Your task to perform on an android device: toggle priority inbox in the gmail app Image 0: 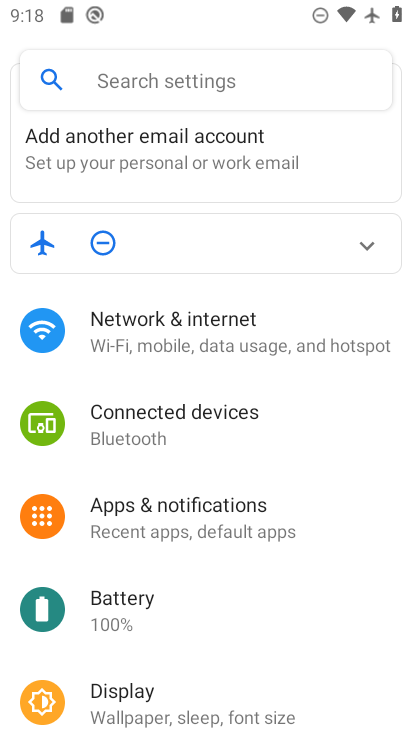
Step 0: press home button
Your task to perform on an android device: toggle priority inbox in the gmail app Image 1: 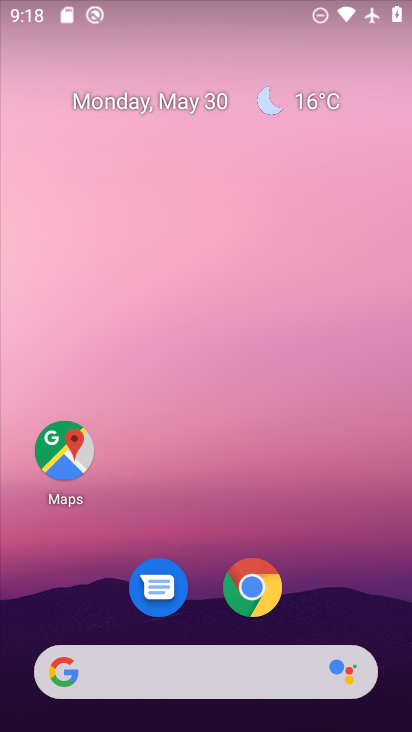
Step 1: drag from (197, 665) to (369, 98)
Your task to perform on an android device: toggle priority inbox in the gmail app Image 2: 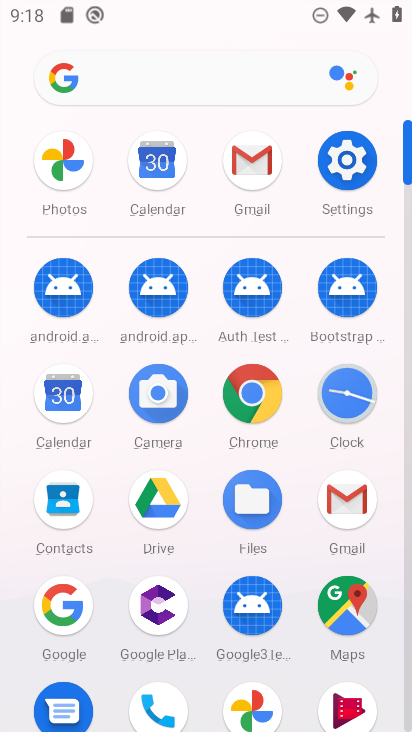
Step 2: click (261, 160)
Your task to perform on an android device: toggle priority inbox in the gmail app Image 3: 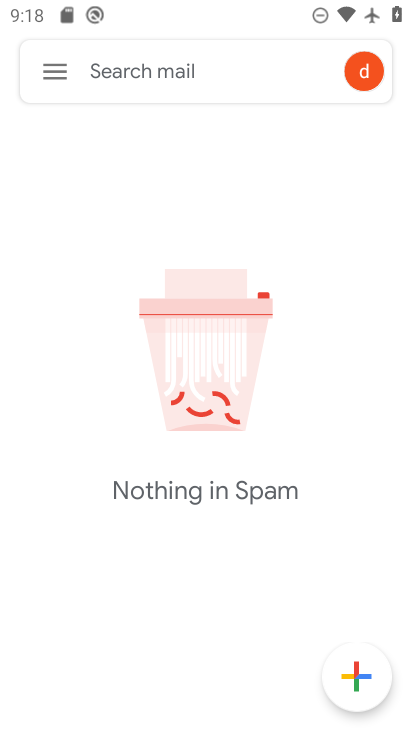
Step 3: click (59, 76)
Your task to perform on an android device: toggle priority inbox in the gmail app Image 4: 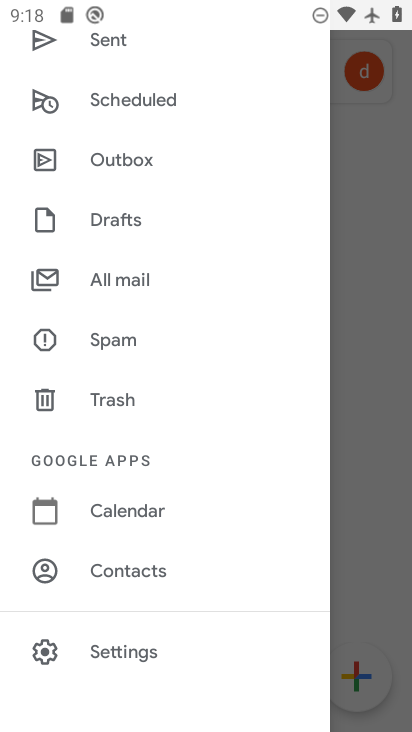
Step 4: click (125, 654)
Your task to perform on an android device: toggle priority inbox in the gmail app Image 5: 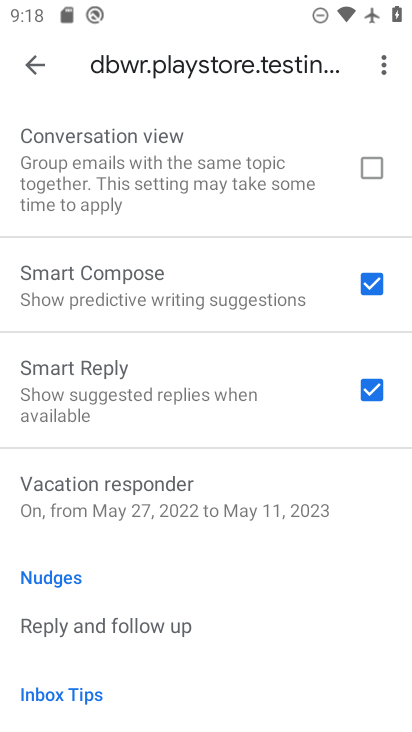
Step 5: drag from (267, 127) to (292, 593)
Your task to perform on an android device: toggle priority inbox in the gmail app Image 6: 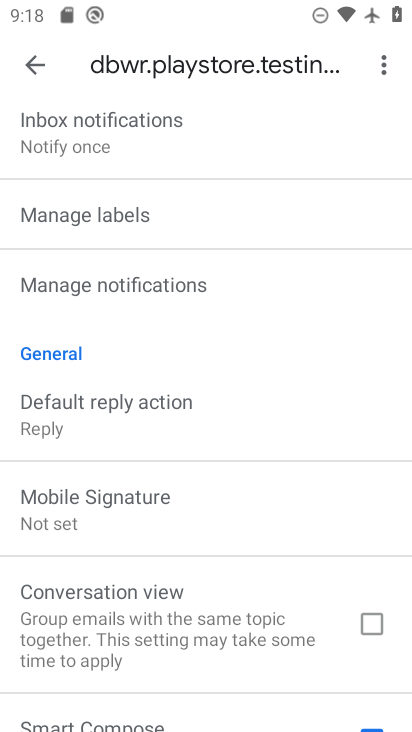
Step 6: drag from (279, 197) to (295, 545)
Your task to perform on an android device: toggle priority inbox in the gmail app Image 7: 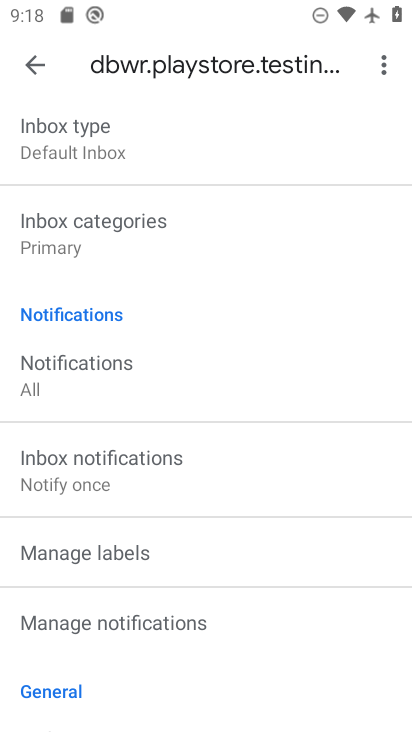
Step 7: click (91, 152)
Your task to perform on an android device: toggle priority inbox in the gmail app Image 8: 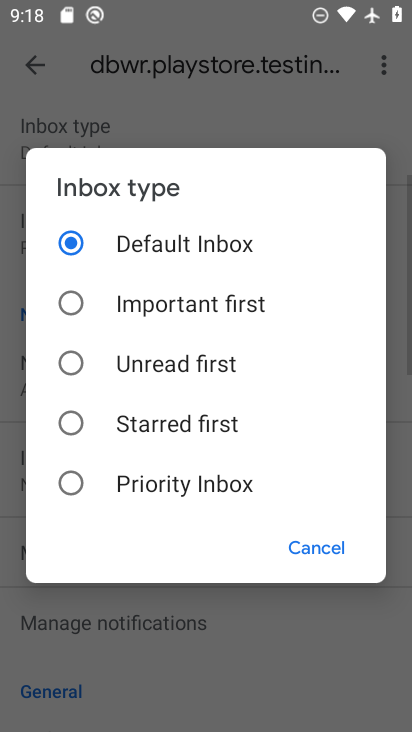
Step 8: click (70, 486)
Your task to perform on an android device: toggle priority inbox in the gmail app Image 9: 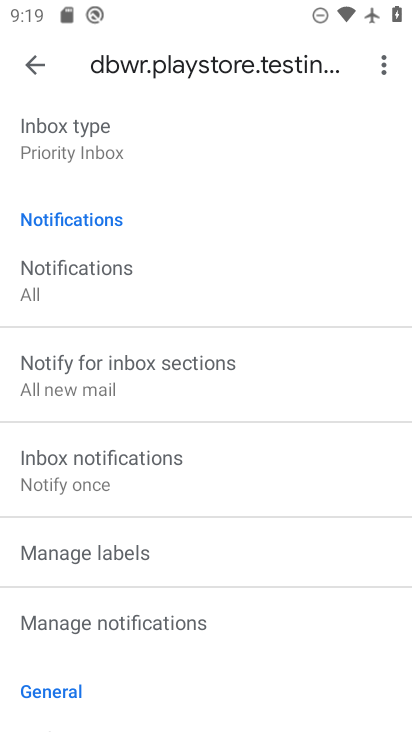
Step 9: task complete